Your task to perform on an android device: move an email to a new category in the gmail app Image 0: 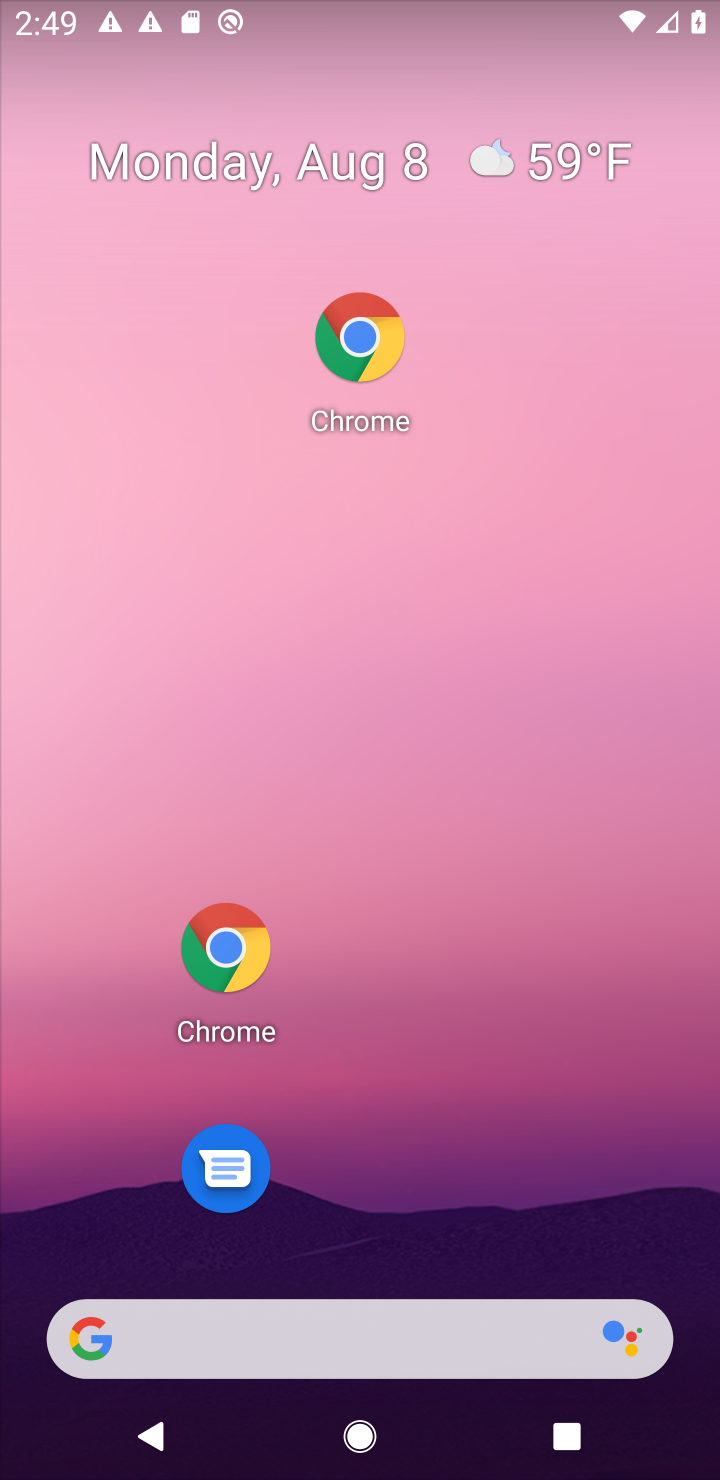
Step 0: drag from (510, 1102) to (480, 288)
Your task to perform on an android device: move an email to a new category in the gmail app Image 1: 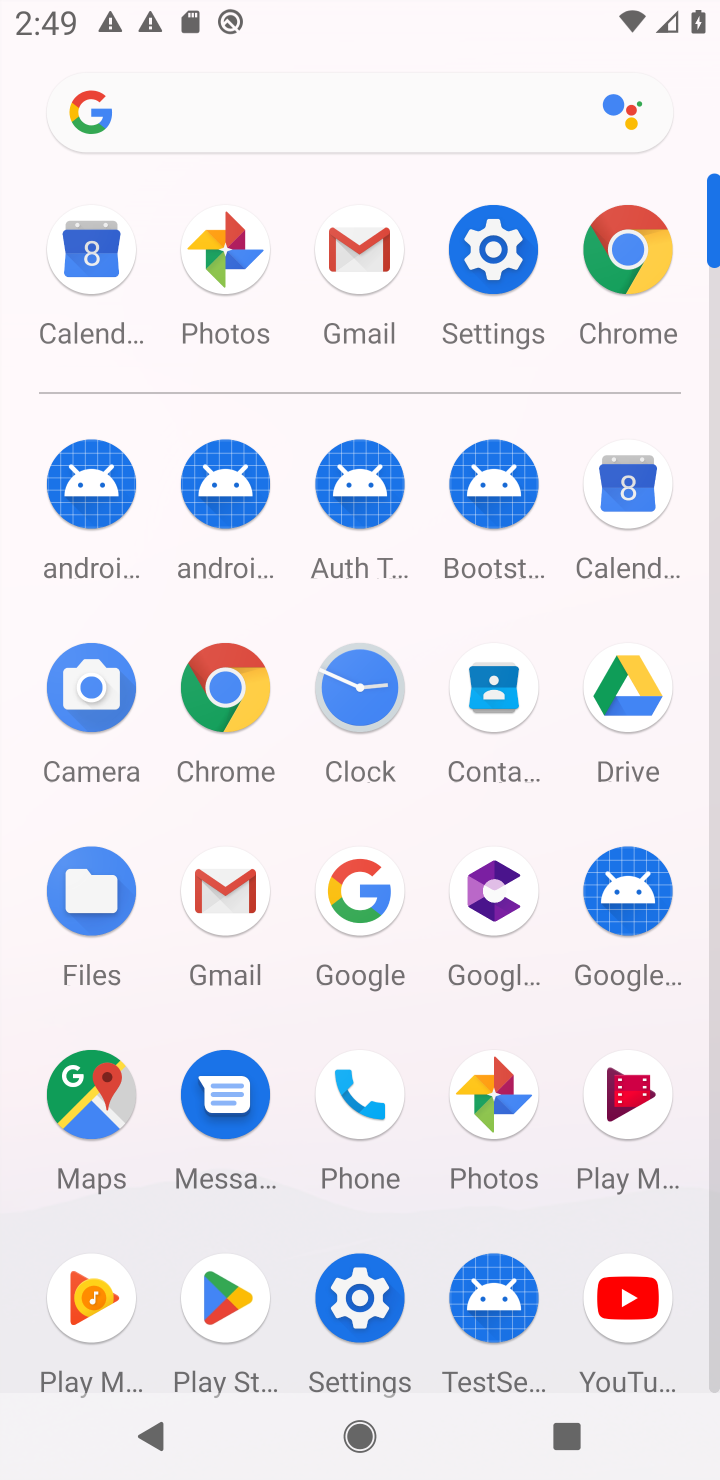
Step 1: click (369, 262)
Your task to perform on an android device: move an email to a new category in the gmail app Image 2: 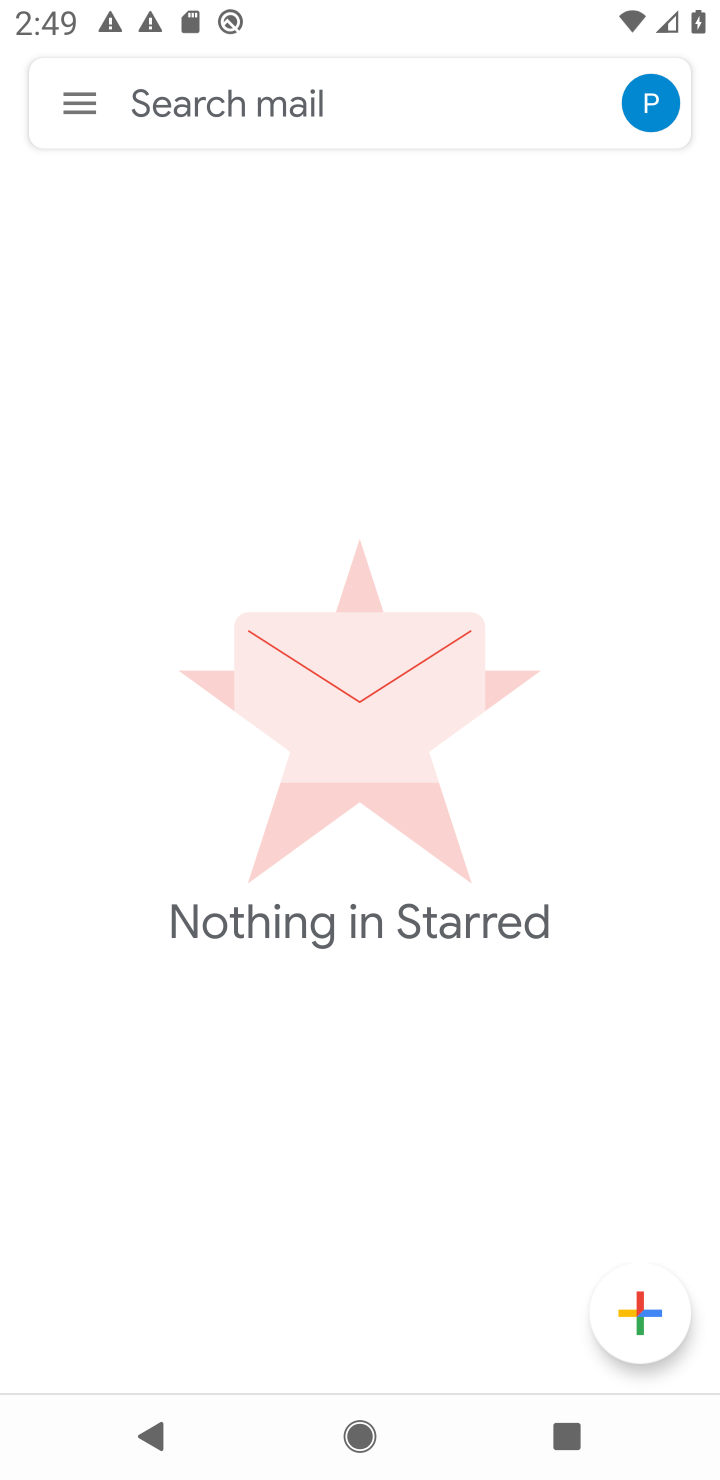
Step 2: task complete